Your task to perform on an android device: Search for sushi restaurants on Maps Image 0: 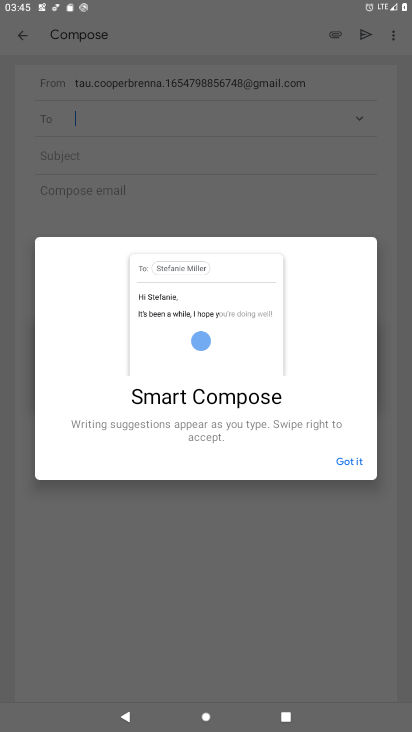
Step 0: press home button
Your task to perform on an android device: Search for sushi restaurants on Maps Image 1: 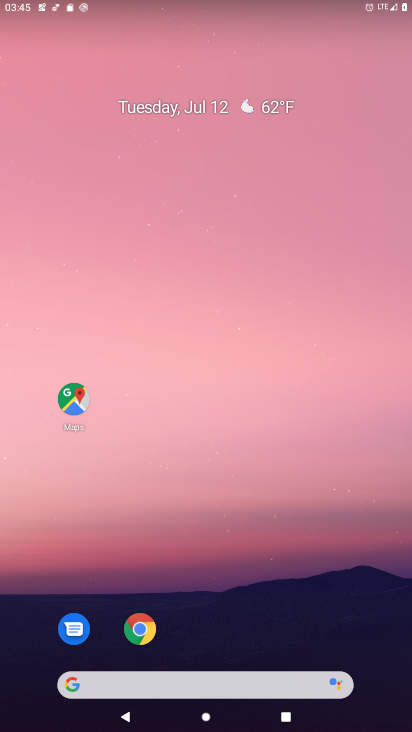
Step 1: drag from (174, 663) to (99, 48)
Your task to perform on an android device: Search for sushi restaurants on Maps Image 2: 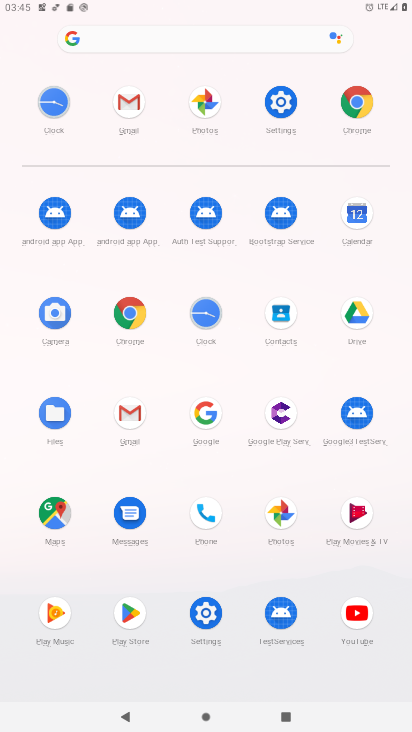
Step 2: click (53, 530)
Your task to perform on an android device: Search for sushi restaurants on Maps Image 3: 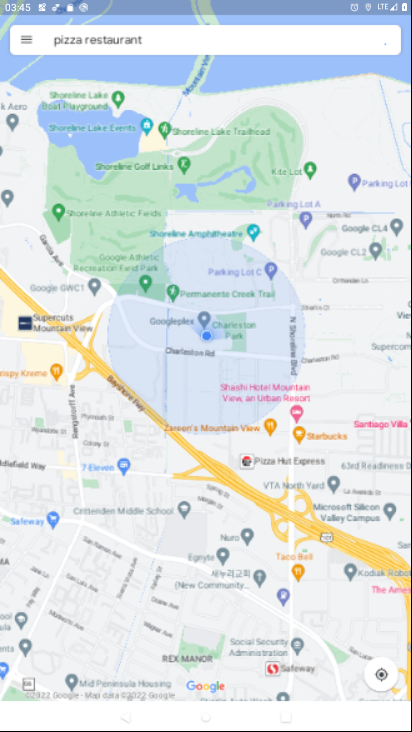
Step 3: click (142, 46)
Your task to perform on an android device: Search for sushi restaurants on Maps Image 4: 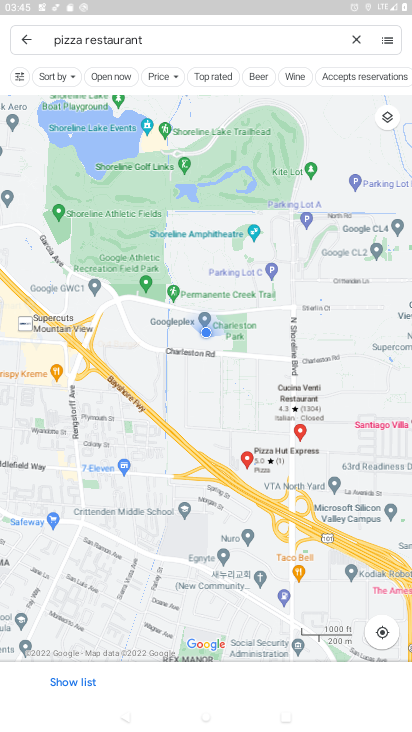
Step 4: click (356, 40)
Your task to perform on an android device: Search for sushi restaurants on Maps Image 5: 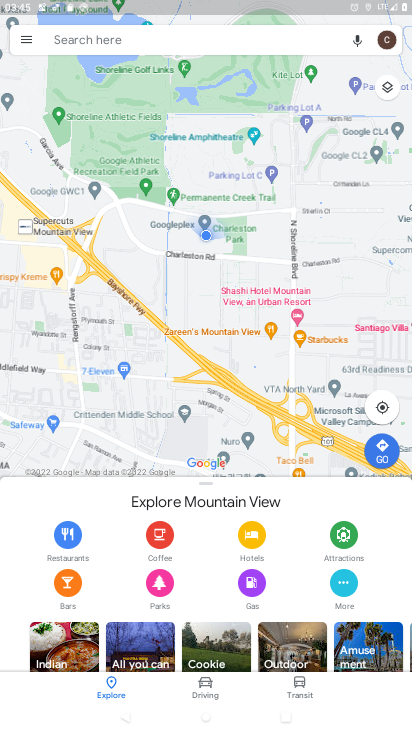
Step 5: type "sushi restaurants"
Your task to perform on an android device: Search for sushi restaurants on Maps Image 6: 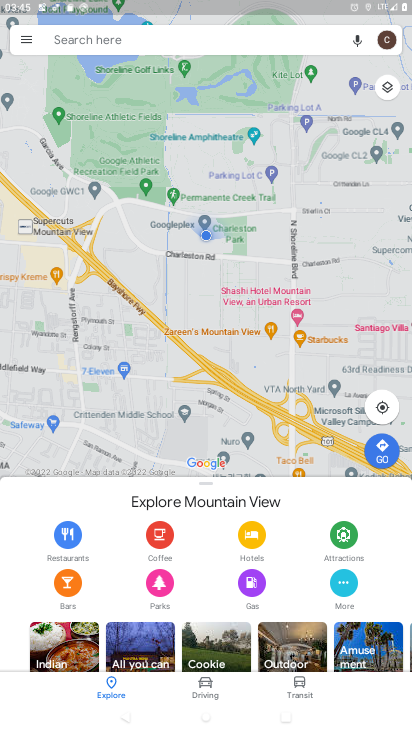
Step 6: type ""
Your task to perform on an android device: Search for sushi restaurants on Maps Image 7: 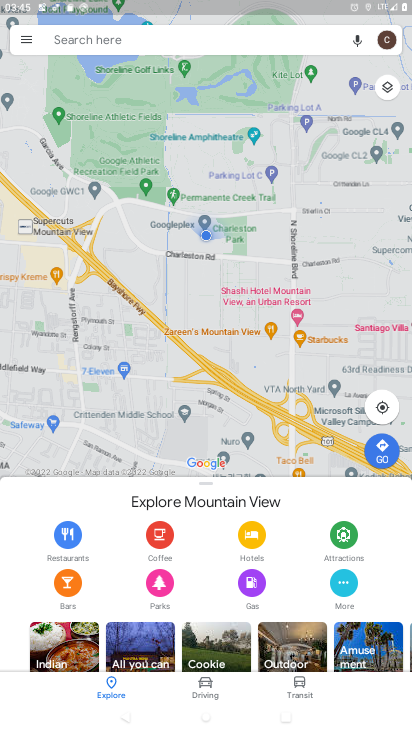
Step 7: click (173, 45)
Your task to perform on an android device: Search for sushi restaurants on Maps Image 8: 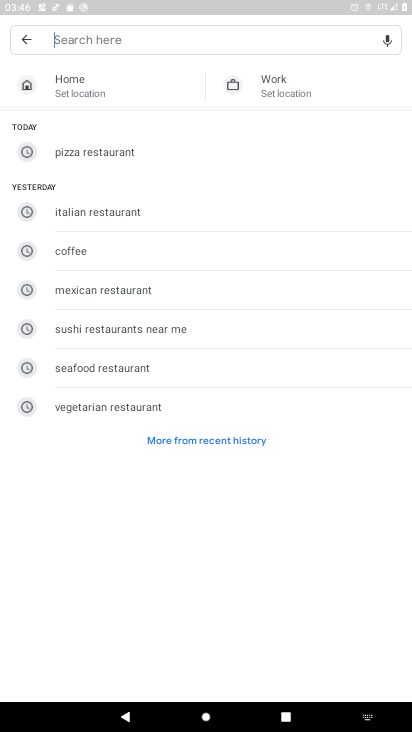
Step 8: type "sushi restaurants"
Your task to perform on an android device: Search for sushi restaurants on Maps Image 9: 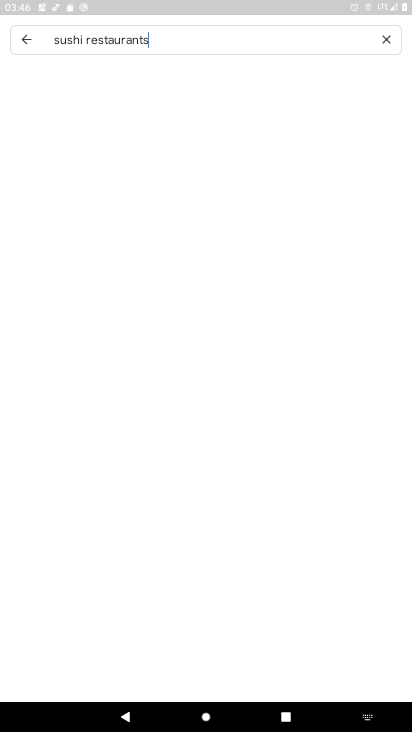
Step 9: type ""
Your task to perform on an android device: Search for sushi restaurants on Maps Image 10: 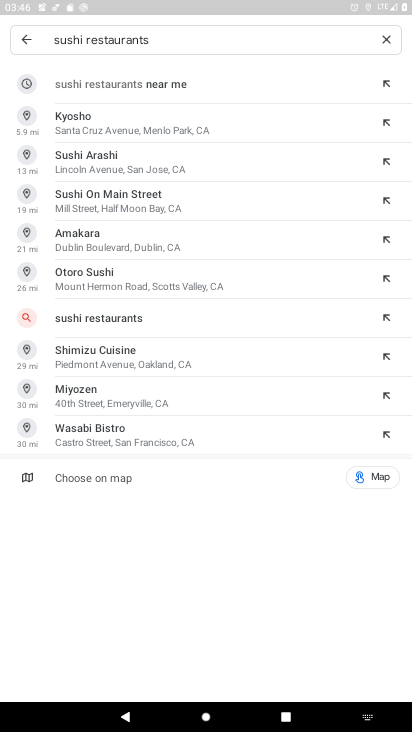
Step 10: click (83, 91)
Your task to perform on an android device: Search for sushi restaurants on Maps Image 11: 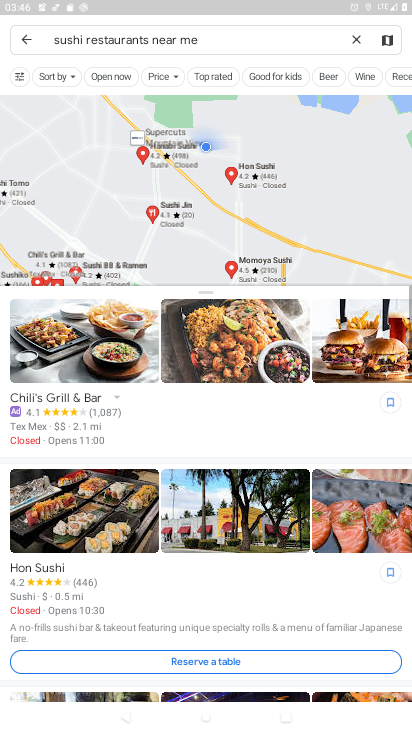
Step 11: task complete